Your task to perform on an android device: install app "Skype" Image 0: 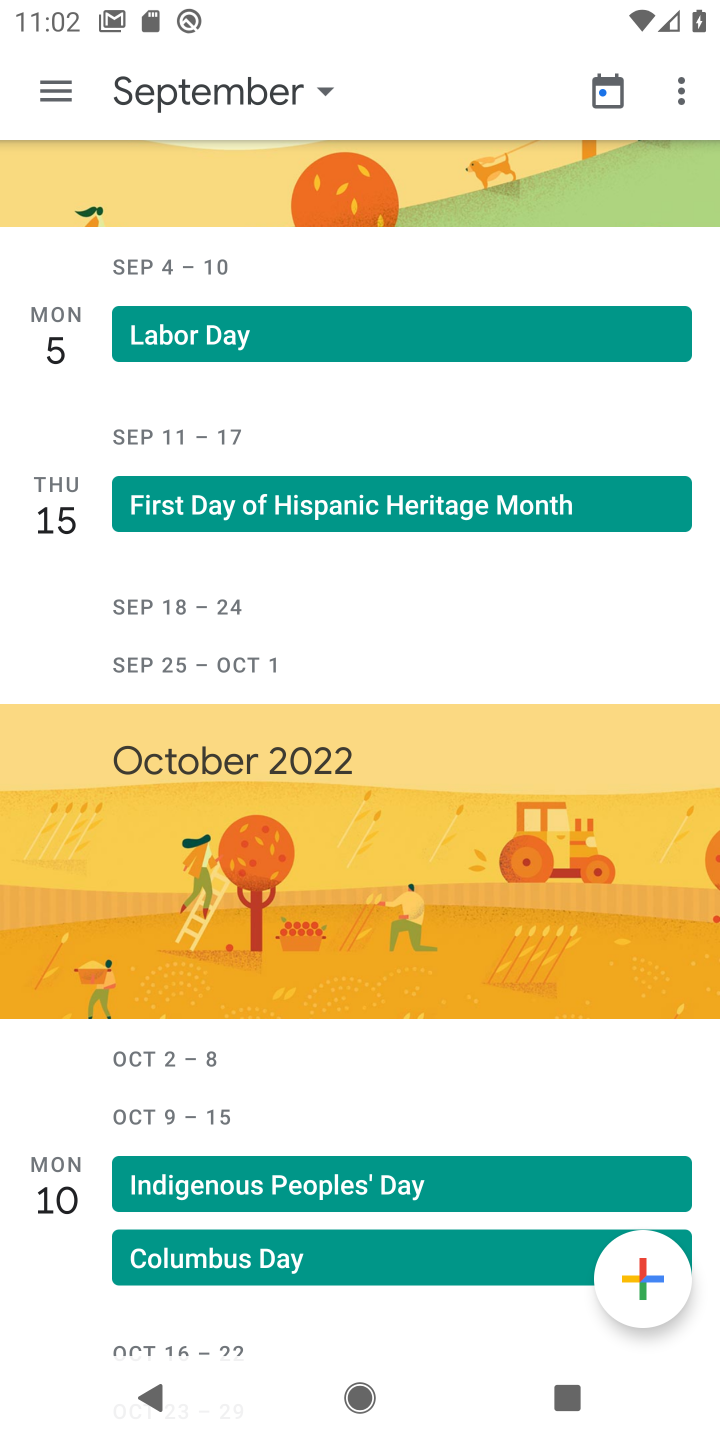
Step 0: press home button
Your task to perform on an android device: install app "Skype" Image 1: 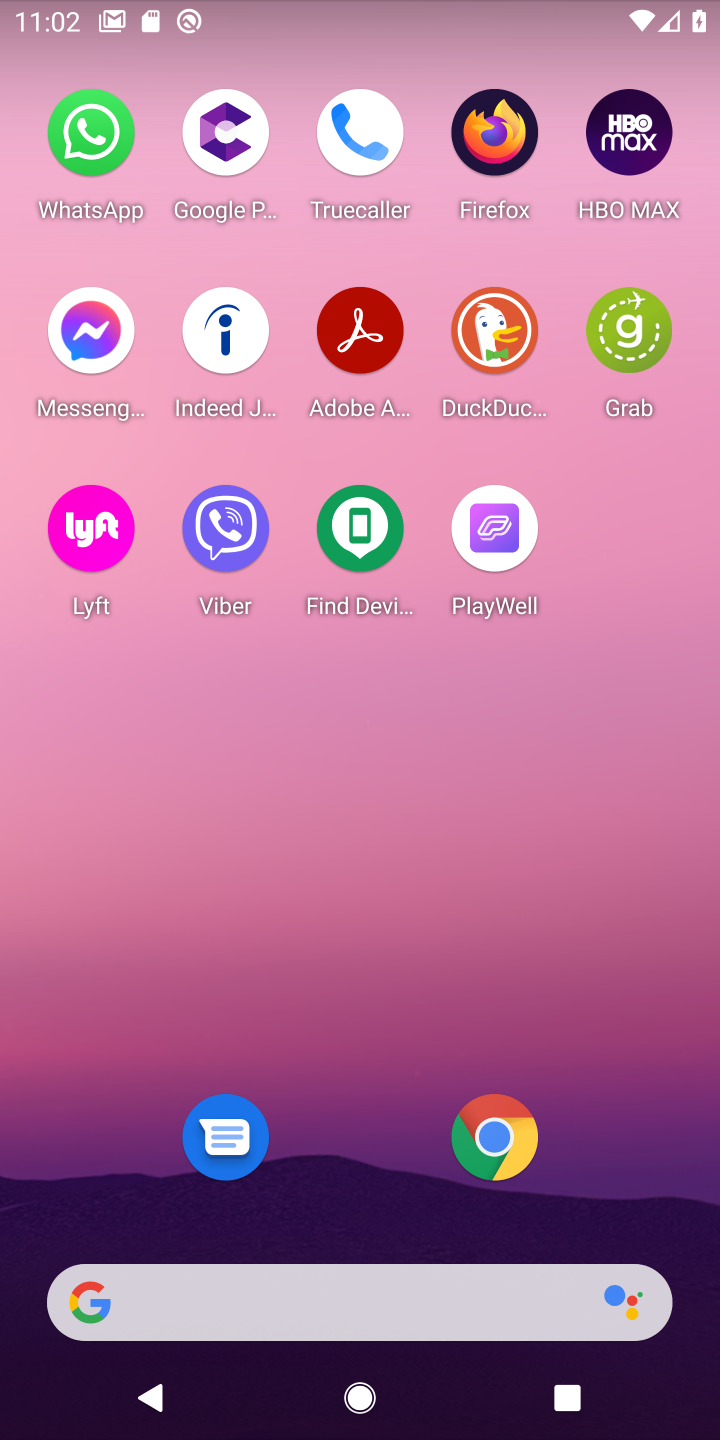
Step 1: drag from (326, 601) to (401, 7)
Your task to perform on an android device: install app "Skype" Image 2: 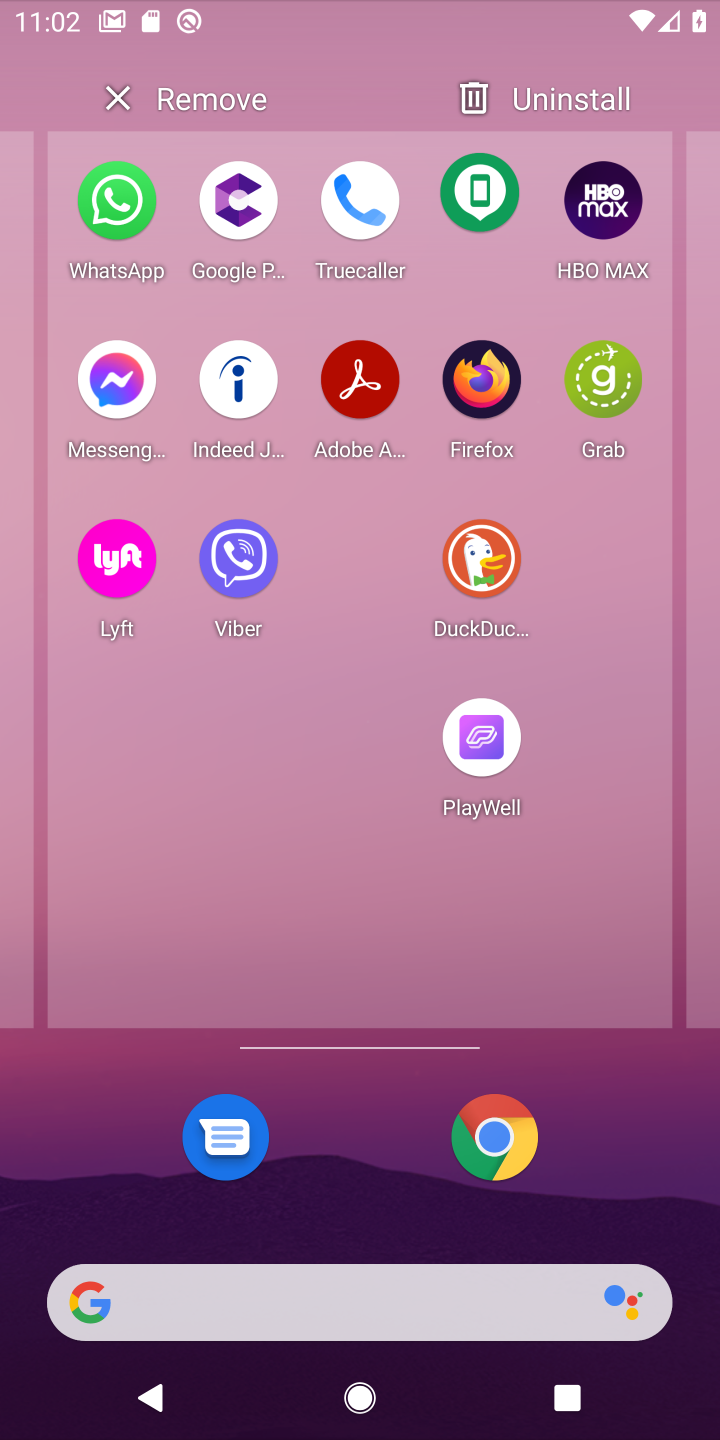
Step 2: click (356, 37)
Your task to perform on an android device: install app "Skype" Image 3: 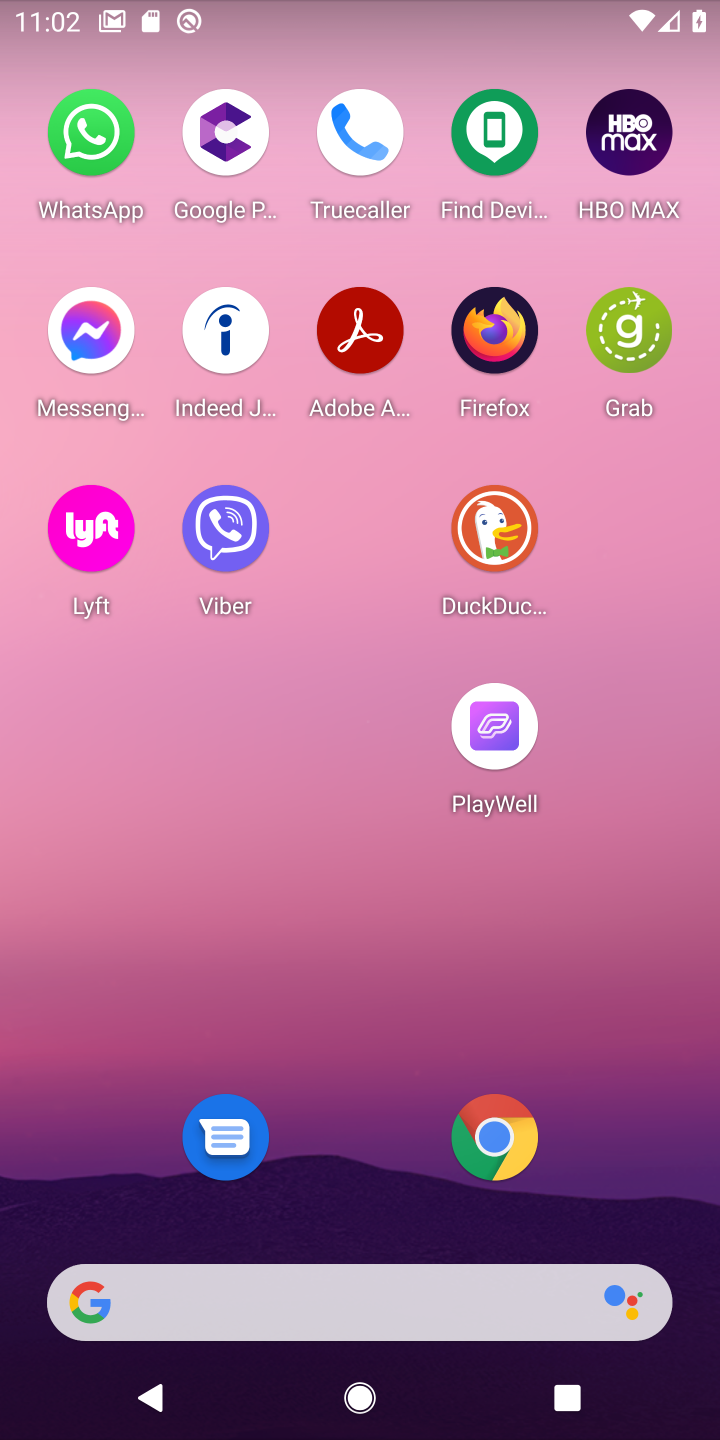
Step 3: drag from (368, 290) to (339, 27)
Your task to perform on an android device: install app "Skype" Image 4: 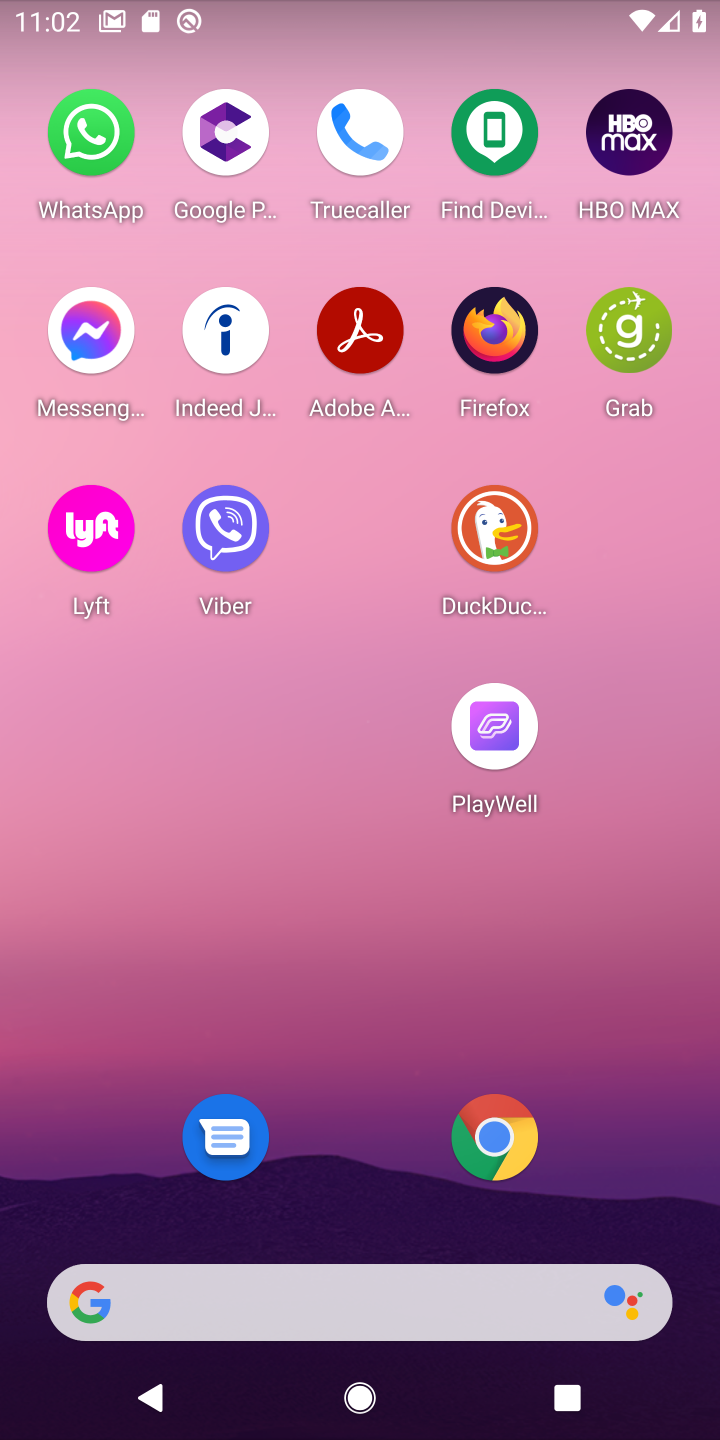
Step 4: drag from (346, 533) to (411, 8)
Your task to perform on an android device: install app "Skype" Image 5: 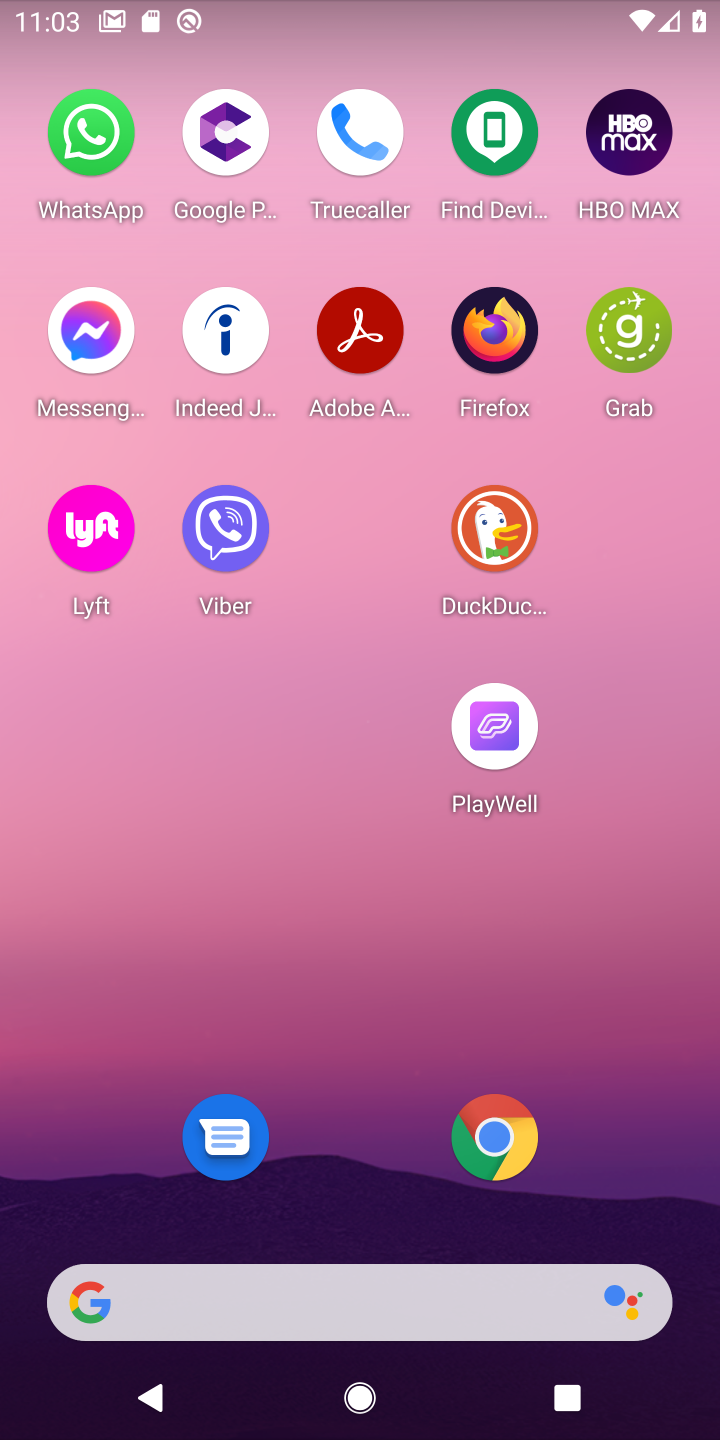
Step 5: drag from (378, 729) to (415, 46)
Your task to perform on an android device: install app "Skype" Image 6: 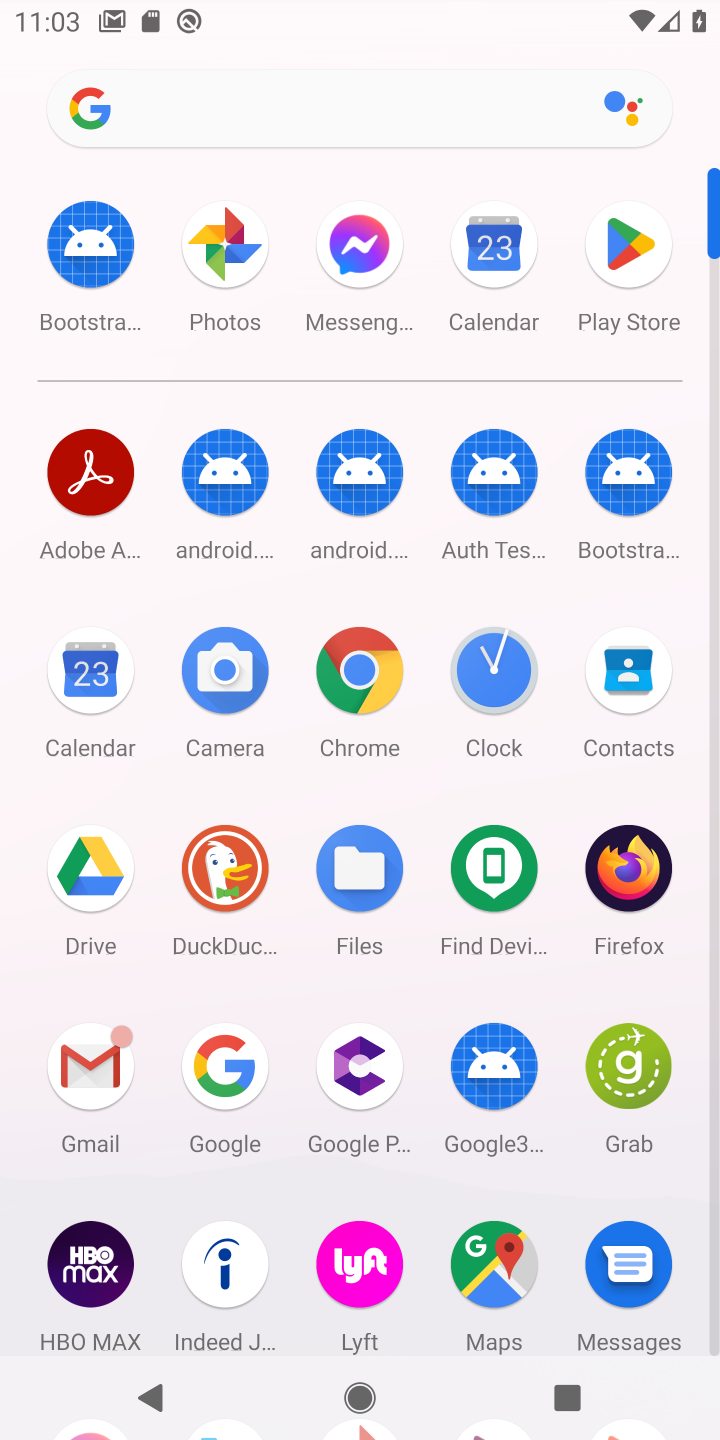
Step 6: click (637, 262)
Your task to perform on an android device: install app "Skype" Image 7: 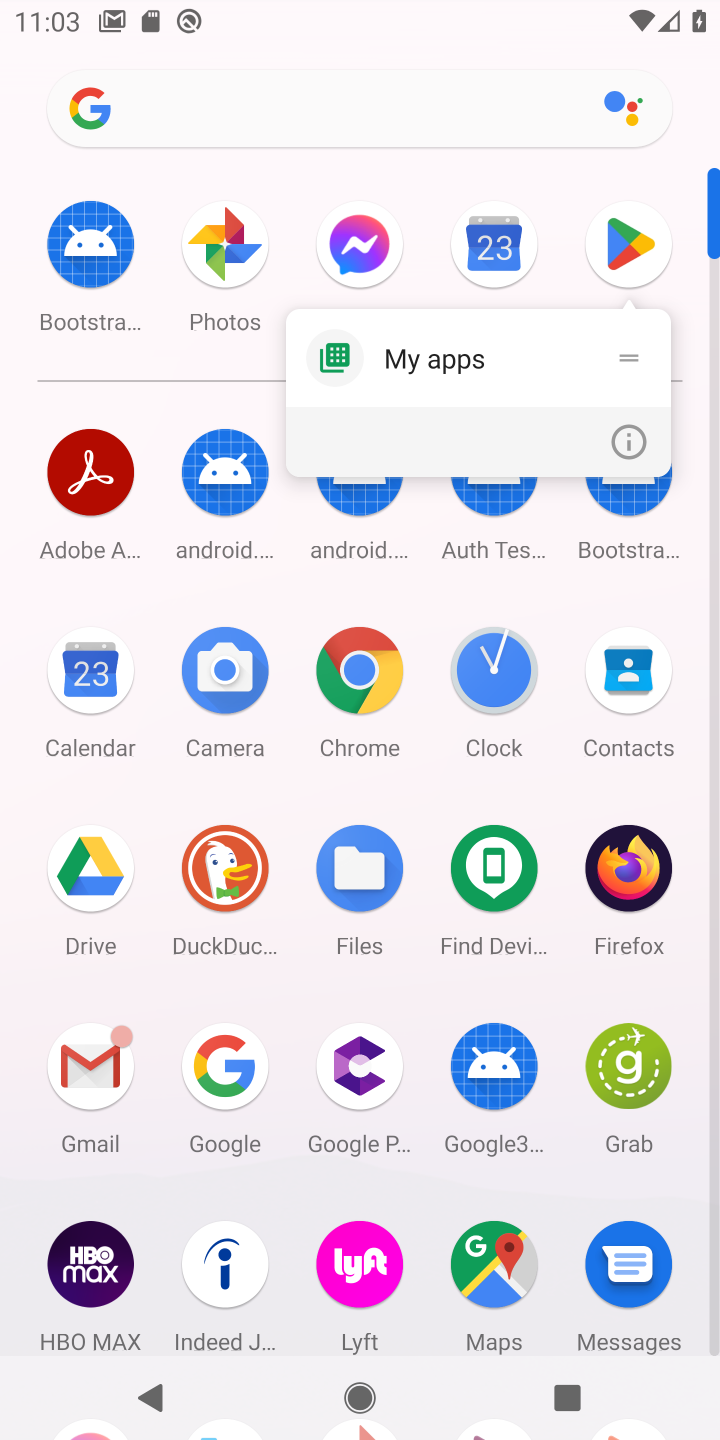
Step 7: click (642, 266)
Your task to perform on an android device: install app "Skype" Image 8: 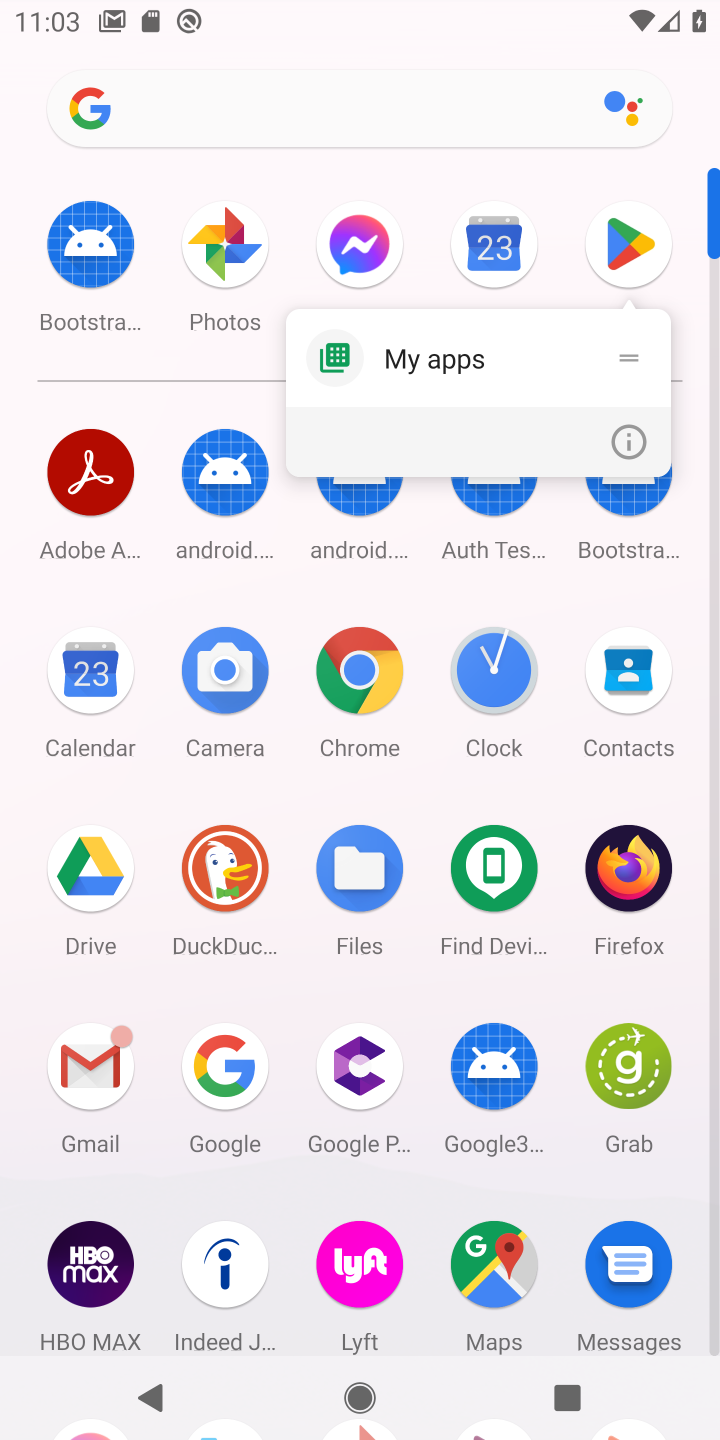
Step 8: click (615, 238)
Your task to perform on an android device: install app "Skype" Image 9: 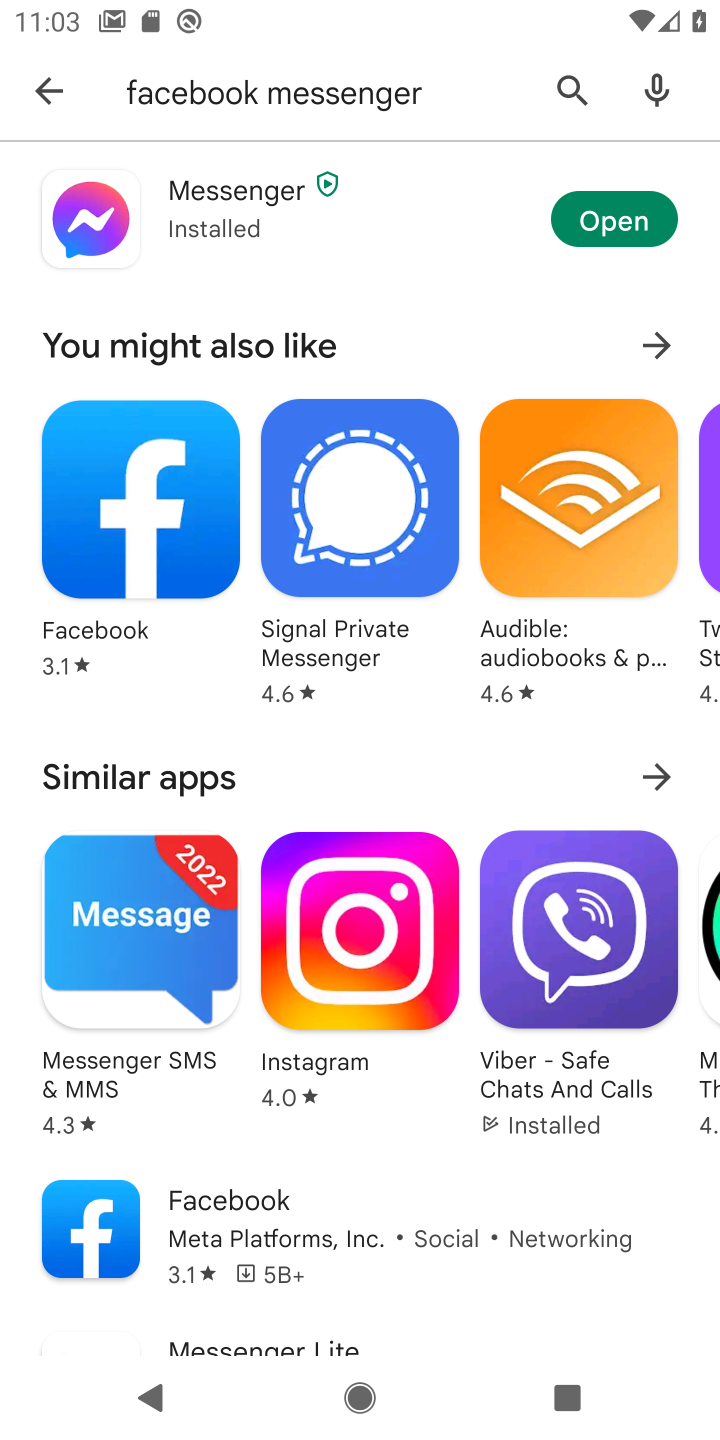
Step 9: click (284, 103)
Your task to perform on an android device: install app "Skype" Image 10: 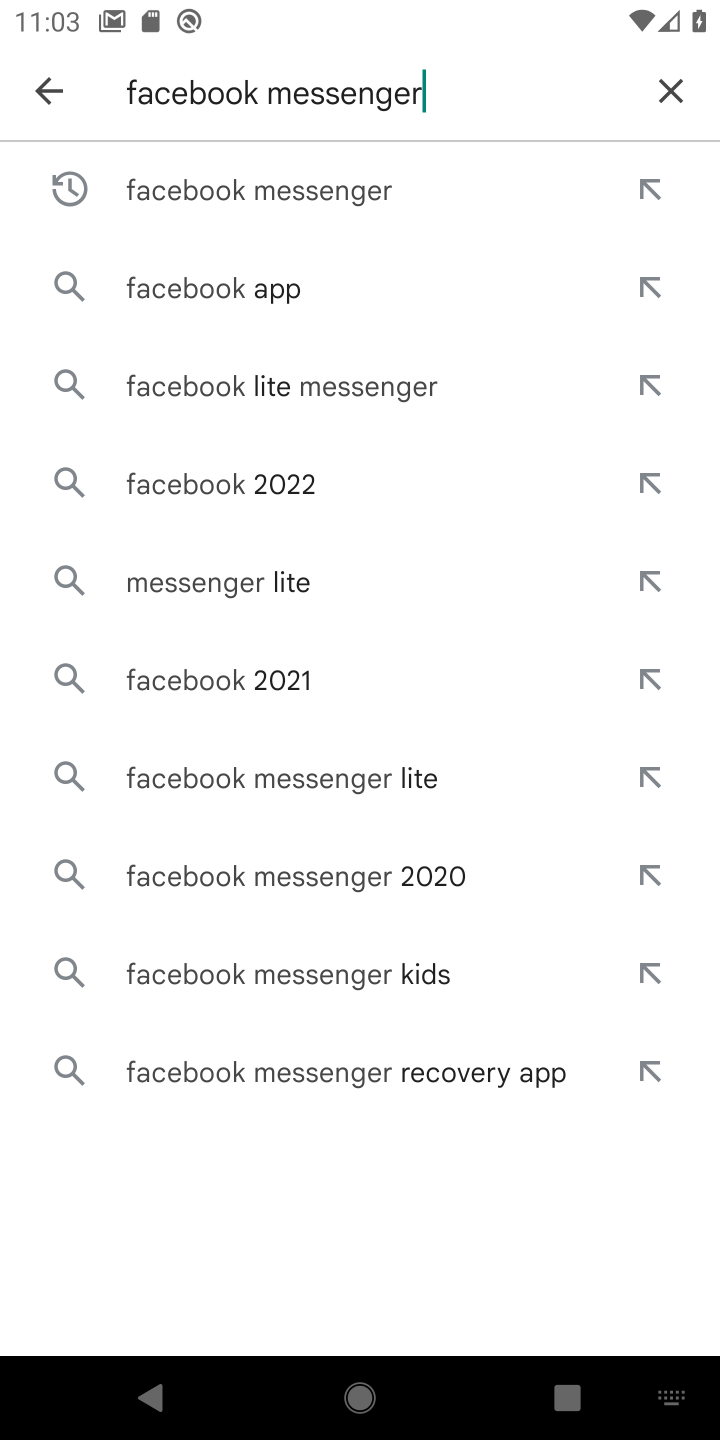
Step 10: click (659, 91)
Your task to perform on an android device: install app "Skype" Image 11: 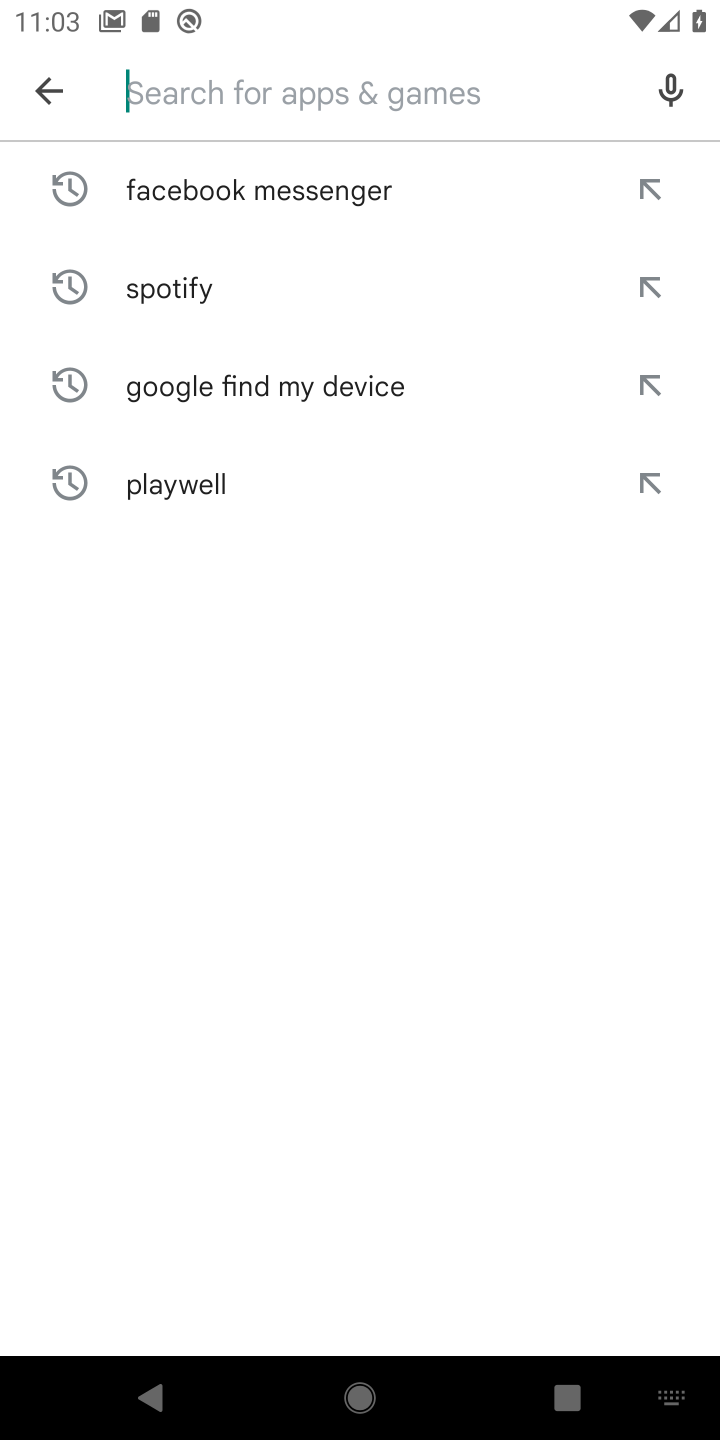
Step 11: type "skype"
Your task to perform on an android device: install app "Skype" Image 12: 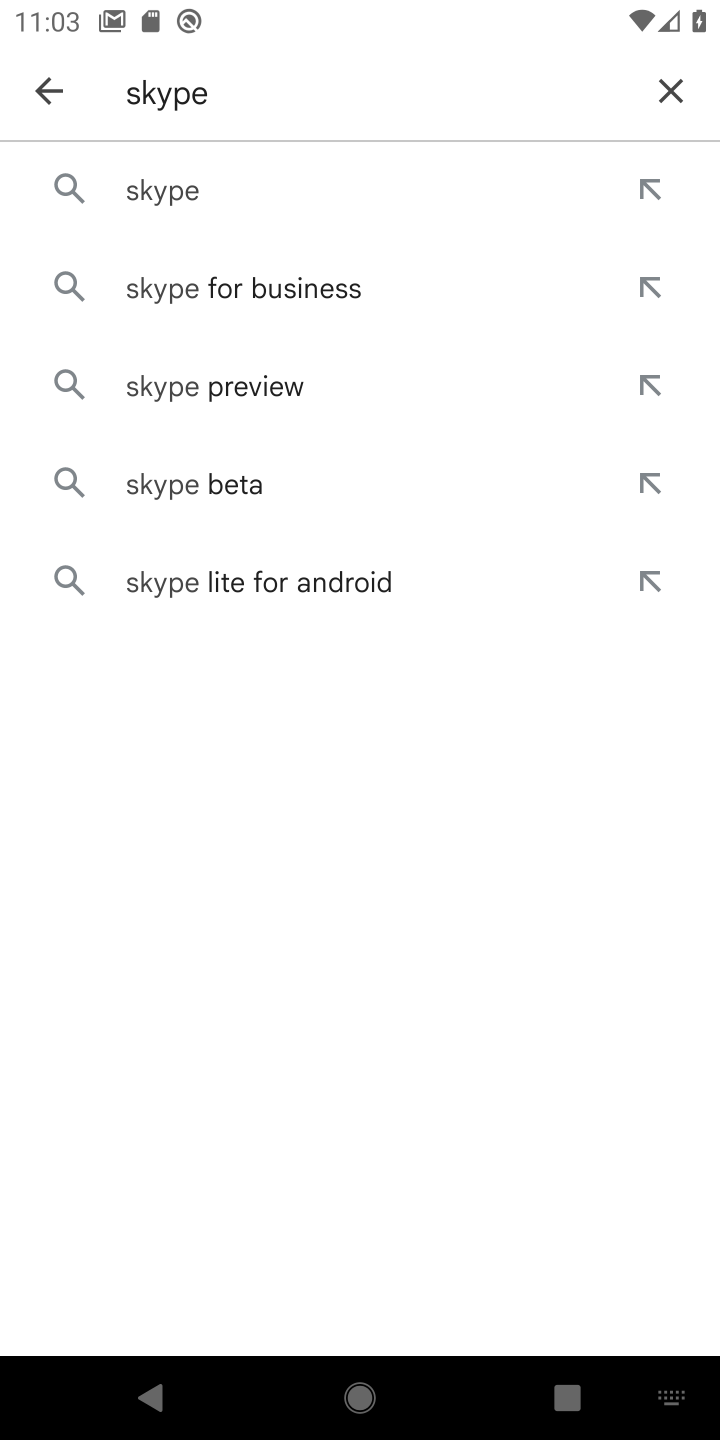
Step 12: click (173, 202)
Your task to perform on an android device: install app "Skype" Image 13: 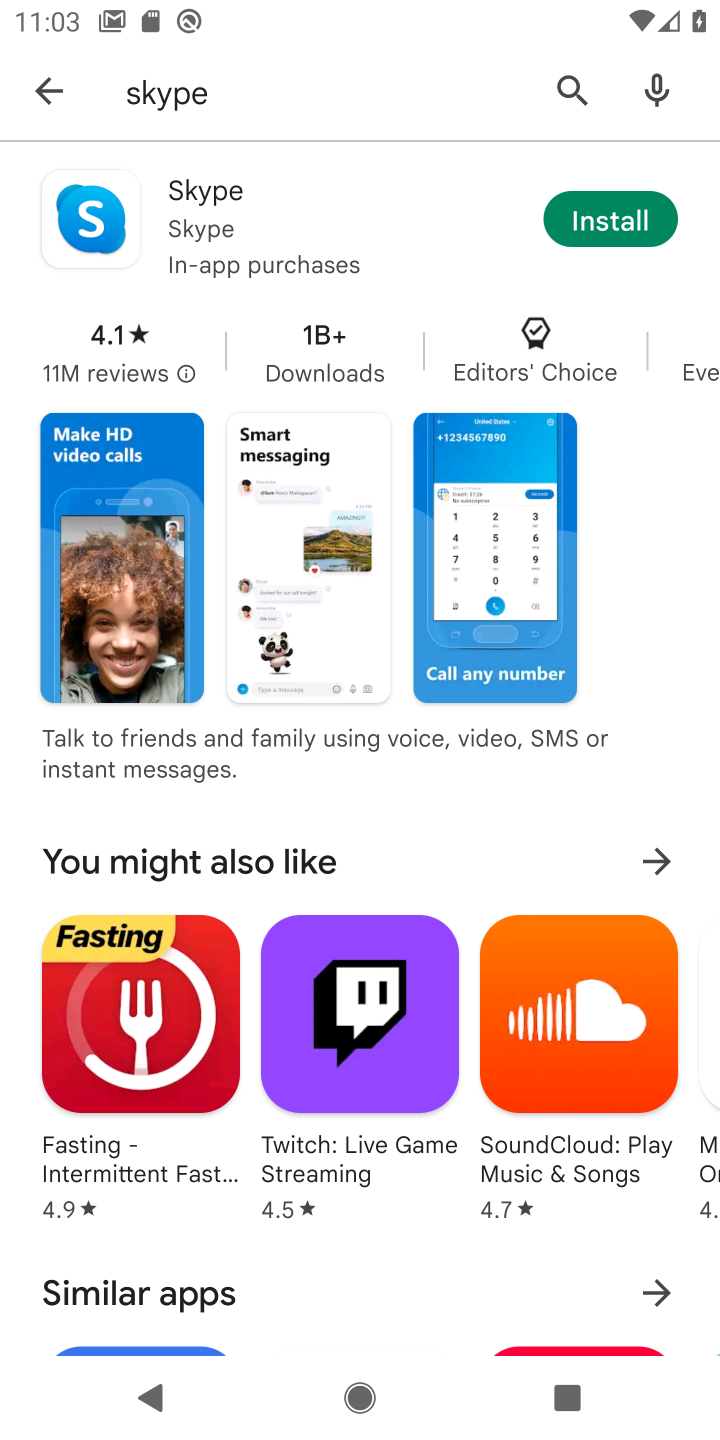
Step 13: click (586, 224)
Your task to perform on an android device: install app "Skype" Image 14: 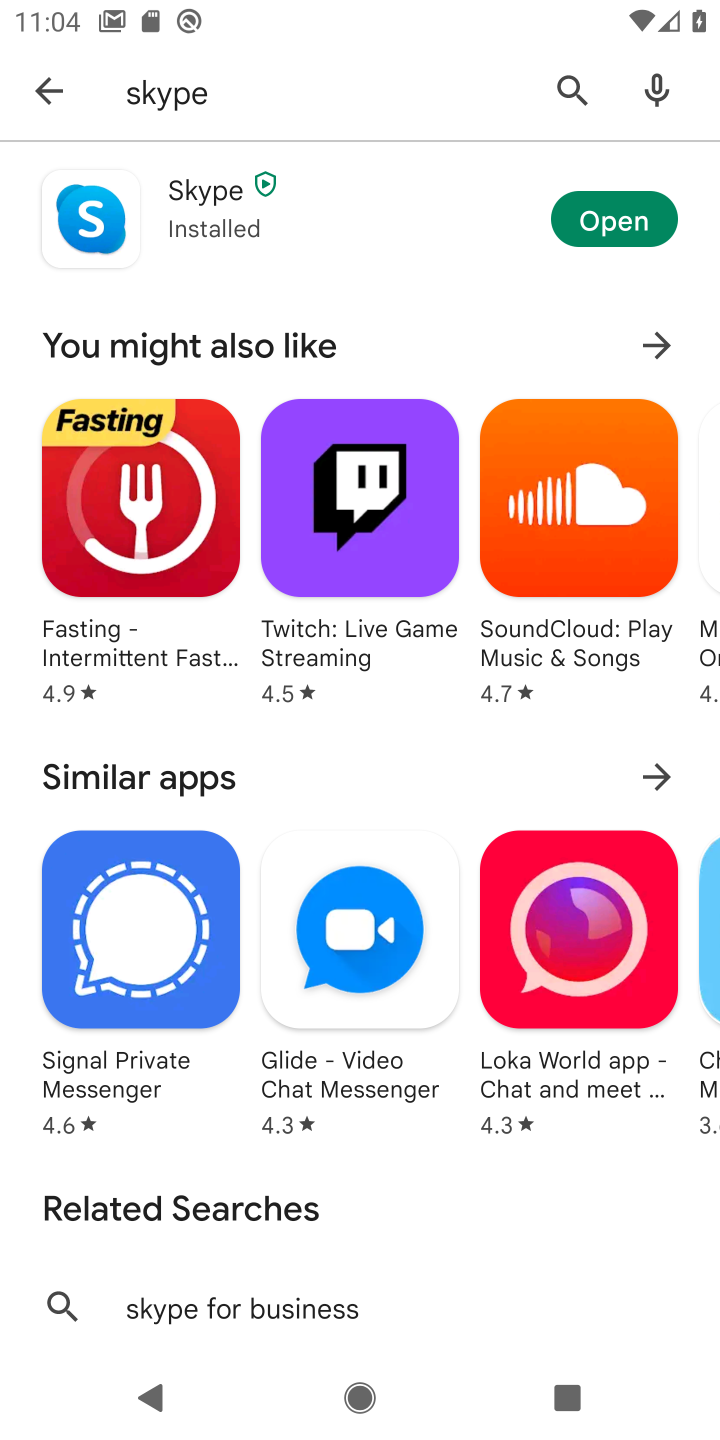
Step 14: task complete